Your task to perform on an android device: Open privacy settings Image 0: 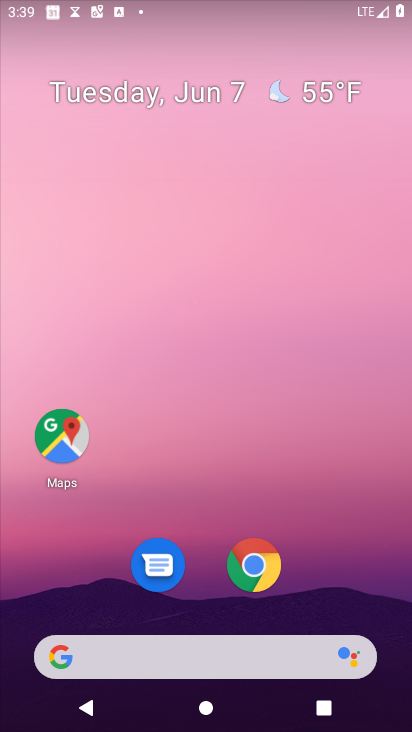
Step 0: drag from (171, 663) to (267, 13)
Your task to perform on an android device: Open privacy settings Image 1: 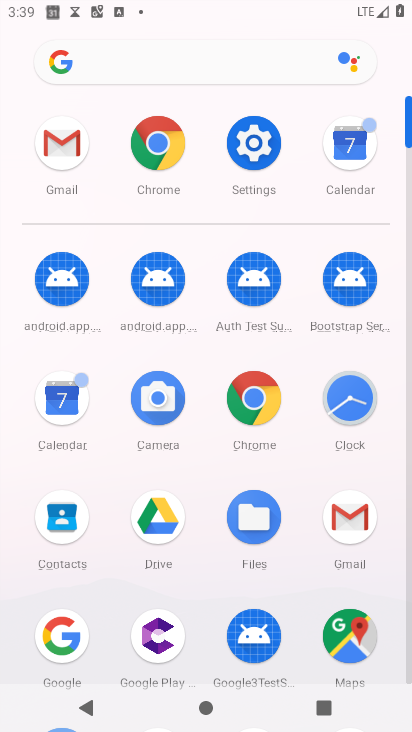
Step 1: click (271, 135)
Your task to perform on an android device: Open privacy settings Image 2: 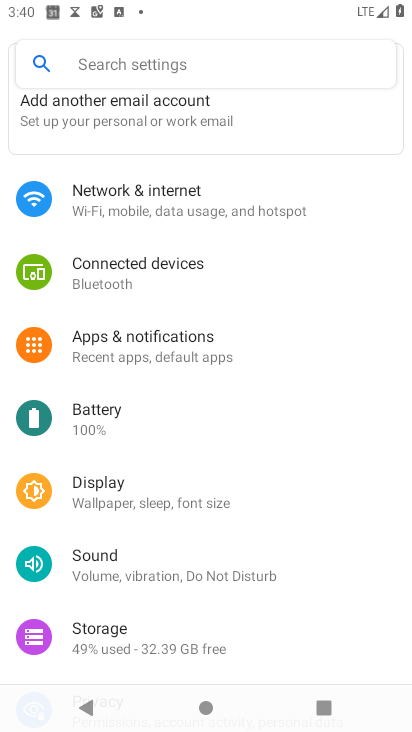
Step 2: click (148, 204)
Your task to perform on an android device: Open privacy settings Image 3: 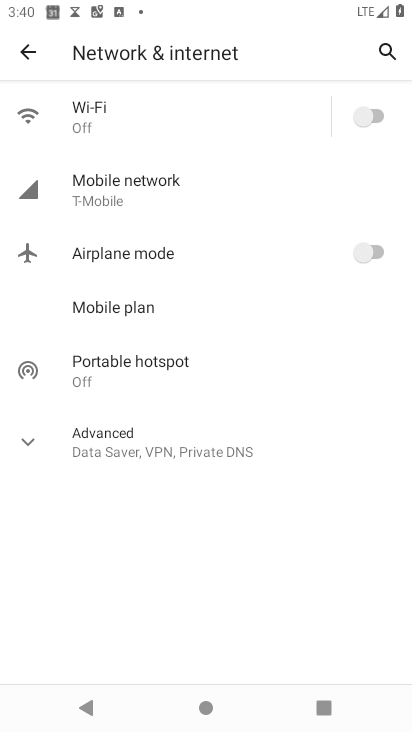
Step 3: press back button
Your task to perform on an android device: Open privacy settings Image 4: 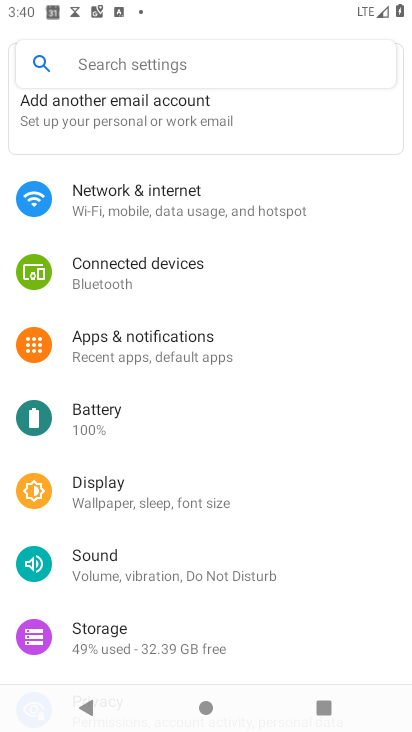
Step 4: drag from (144, 652) to (171, 403)
Your task to perform on an android device: Open privacy settings Image 5: 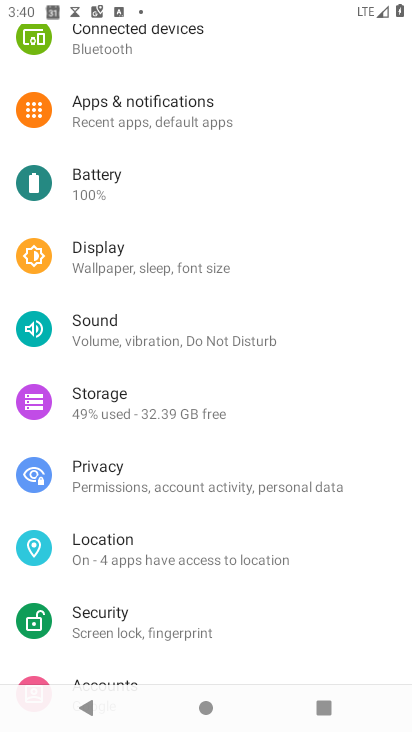
Step 5: click (162, 461)
Your task to perform on an android device: Open privacy settings Image 6: 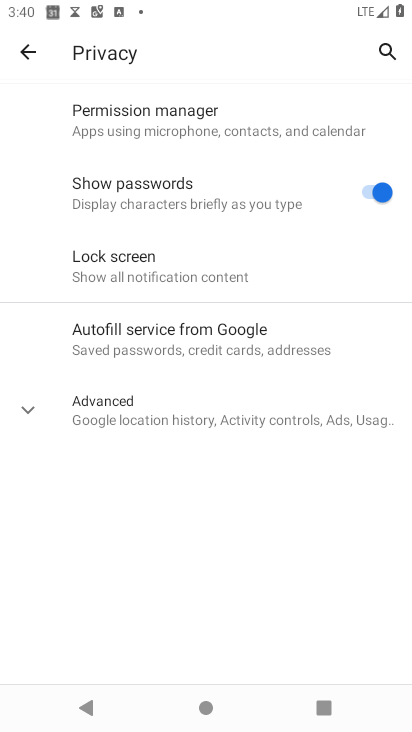
Step 6: task complete